Your task to perform on an android device: change notifications settings Image 0: 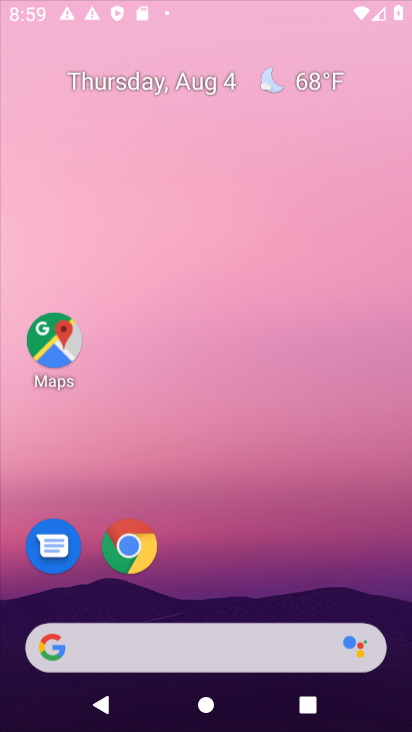
Step 0: press home button
Your task to perform on an android device: change notifications settings Image 1: 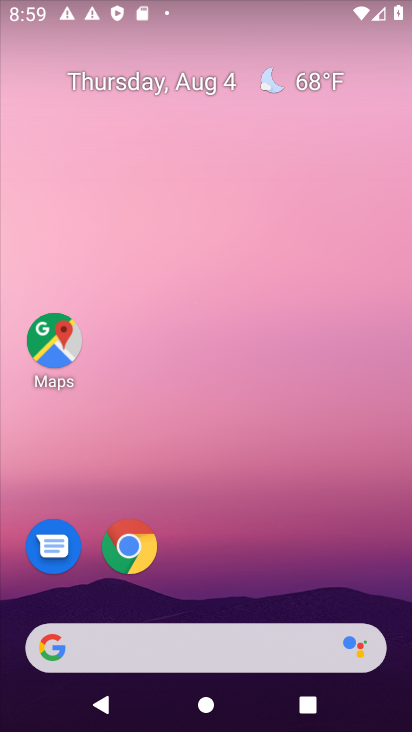
Step 1: drag from (240, 570) to (271, 188)
Your task to perform on an android device: change notifications settings Image 2: 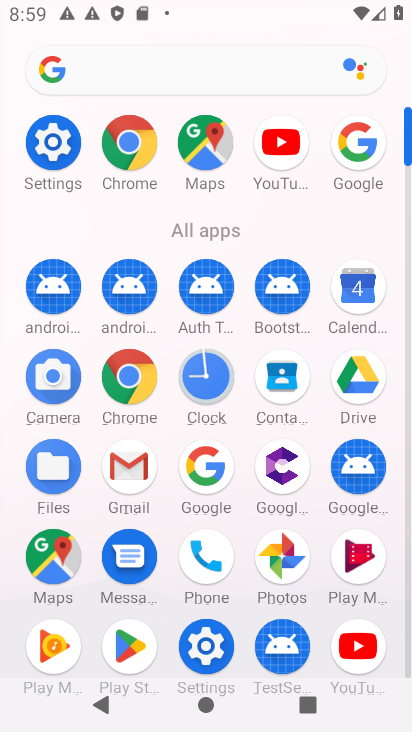
Step 2: click (62, 158)
Your task to perform on an android device: change notifications settings Image 3: 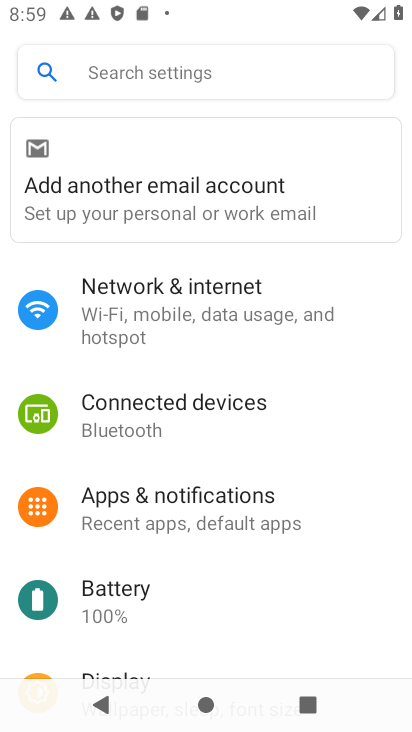
Step 3: click (168, 512)
Your task to perform on an android device: change notifications settings Image 4: 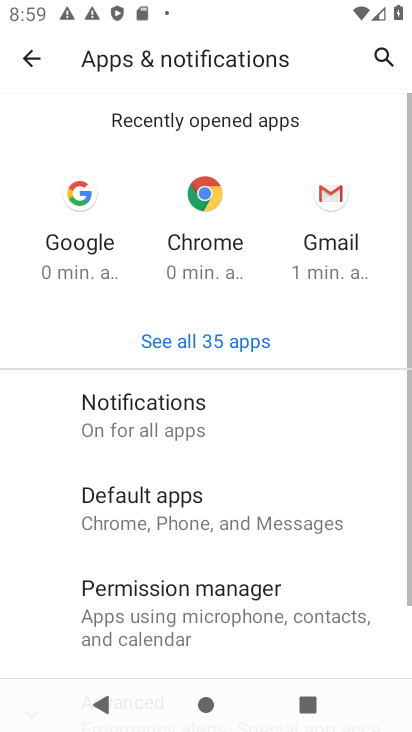
Step 4: click (146, 433)
Your task to perform on an android device: change notifications settings Image 5: 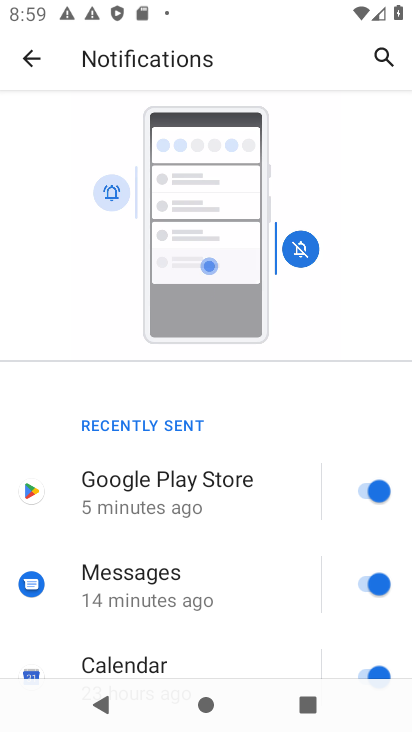
Step 5: drag from (265, 626) to (295, 168)
Your task to perform on an android device: change notifications settings Image 6: 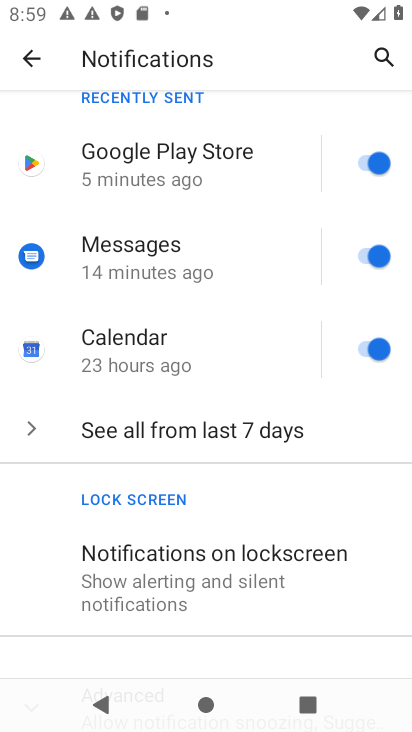
Step 6: drag from (330, 593) to (344, 227)
Your task to perform on an android device: change notifications settings Image 7: 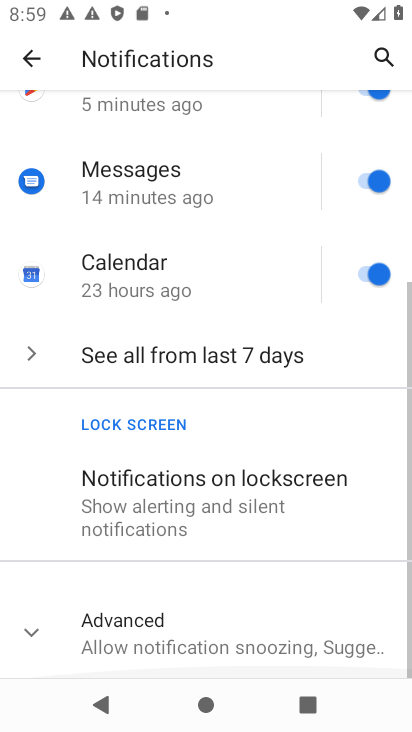
Step 7: click (181, 635)
Your task to perform on an android device: change notifications settings Image 8: 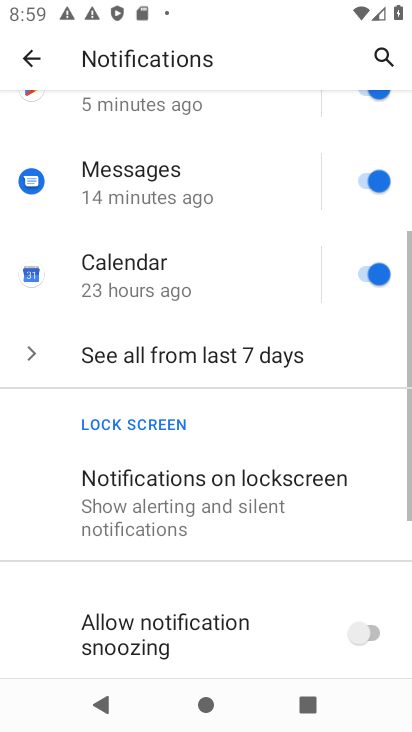
Step 8: drag from (310, 634) to (363, 223)
Your task to perform on an android device: change notifications settings Image 9: 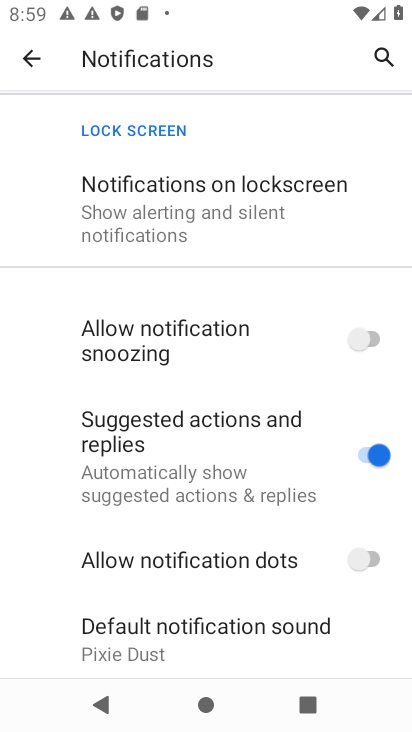
Step 9: click (353, 561)
Your task to perform on an android device: change notifications settings Image 10: 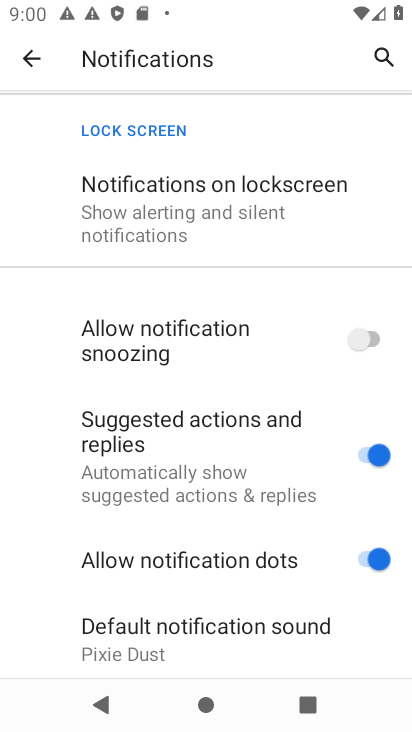
Step 10: task complete